Your task to perform on an android device: open sync settings in chrome Image 0: 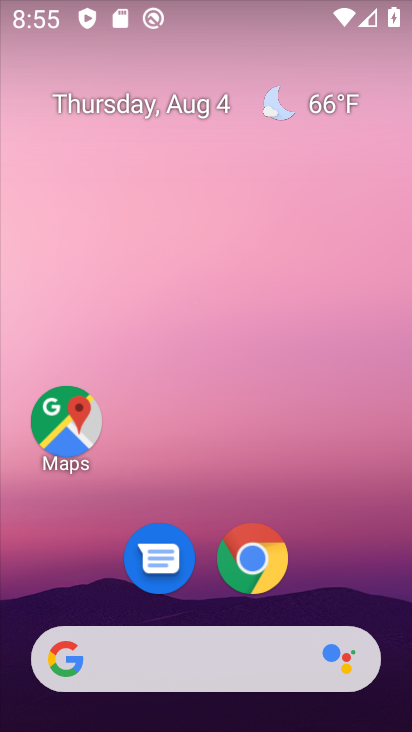
Step 0: drag from (333, 565) to (239, 157)
Your task to perform on an android device: open sync settings in chrome Image 1: 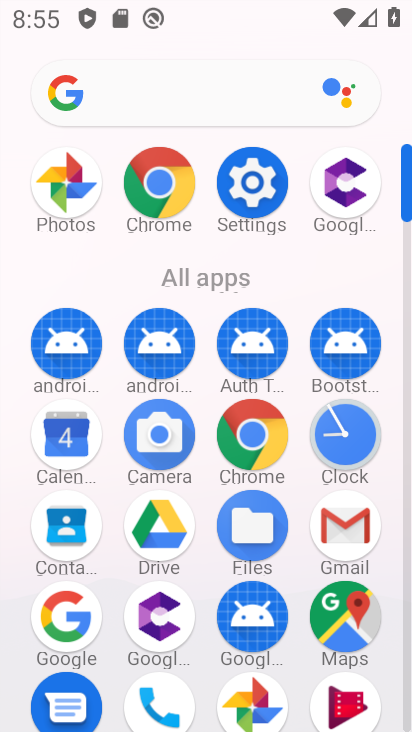
Step 1: click (247, 429)
Your task to perform on an android device: open sync settings in chrome Image 2: 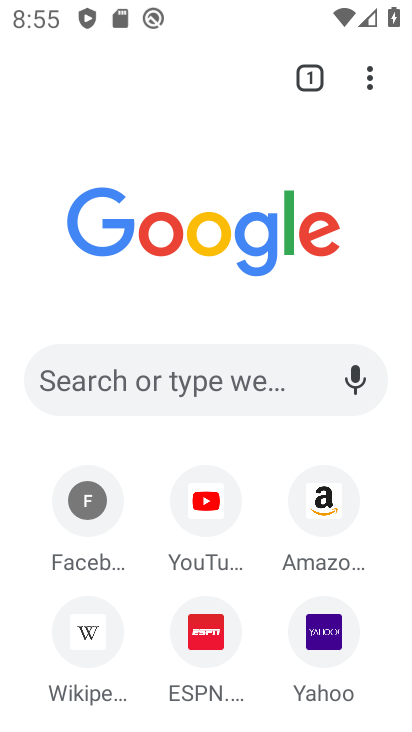
Step 2: drag from (371, 75) to (98, 614)
Your task to perform on an android device: open sync settings in chrome Image 3: 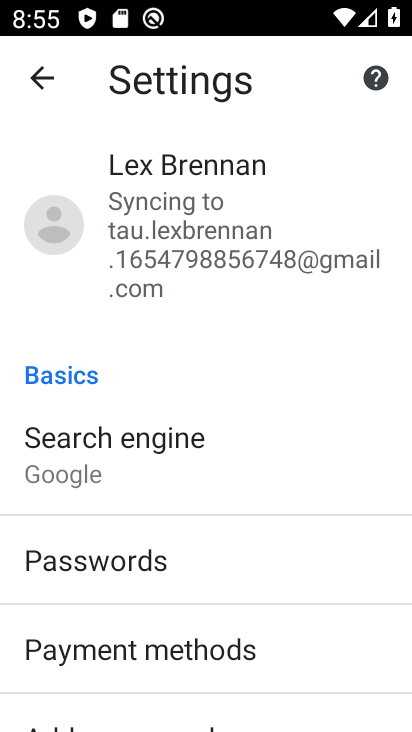
Step 3: drag from (310, 631) to (299, 232)
Your task to perform on an android device: open sync settings in chrome Image 4: 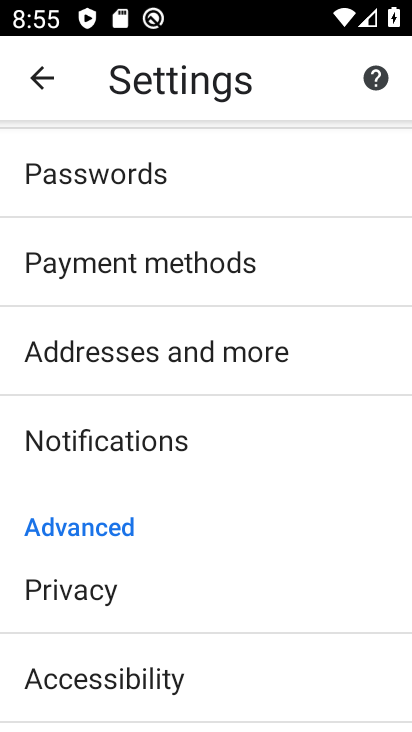
Step 4: drag from (288, 590) to (284, 242)
Your task to perform on an android device: open sync settings in chrome Image 5: 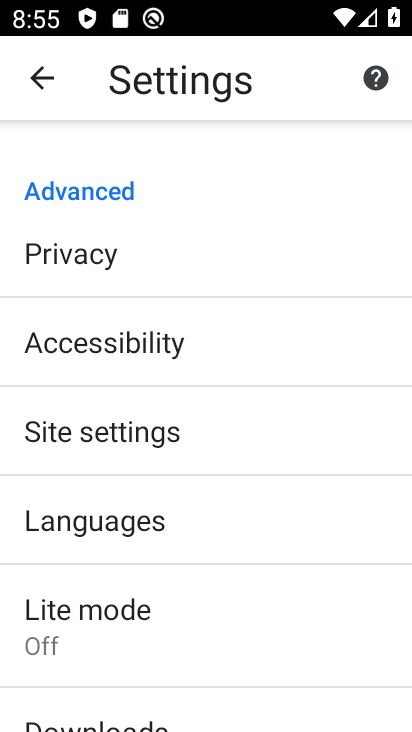
Step 5: drag from (226, 599) to (240, 329)
Your task to perform on an android device: open sync settings in chrome Image 6: 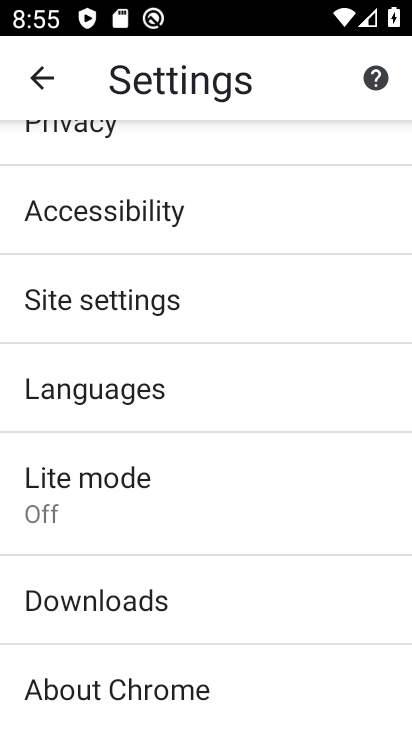
Step 6: click (121, 299)
Your task to perform on an android device: open sync settings in chrome Image 7: 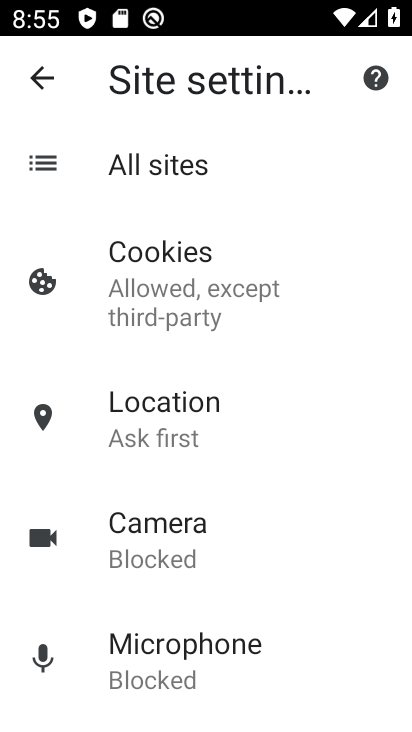
Step 7: drag from (296, 522) to (250, 206)
Your task to perform on an android device: open sync settings in chrome Image 8: 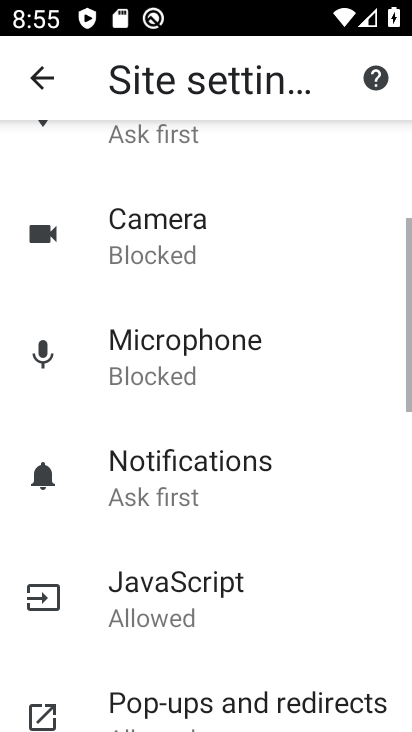
Step 8: drag from (226, 556) to (208, 646)
Your task to perform on an android device: open sync settings in chrome Image 9: 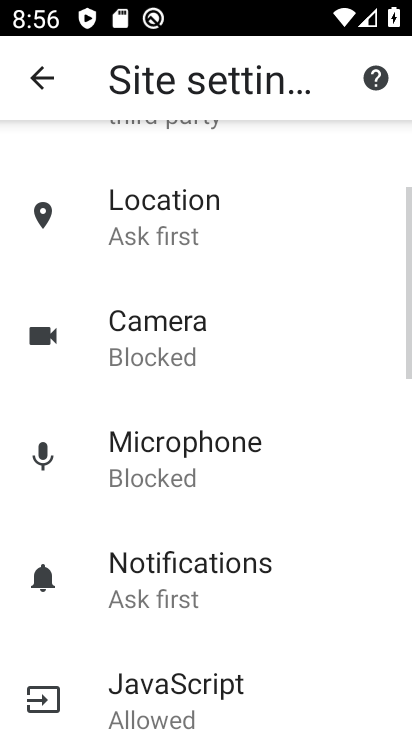
Step 9: drag from (184, 162) to (190, 588)
Your task to perform on an android device: open sync settings in chrome Image 10: 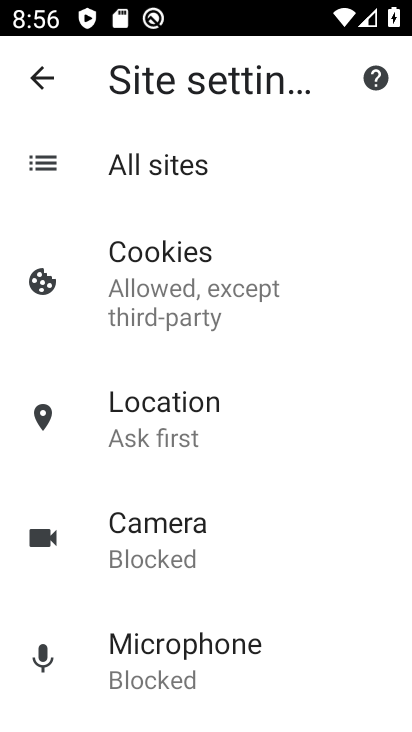
Step 10: click (44, 73)
Your task to perform on an android device: open sync settings in chrome Image 11: 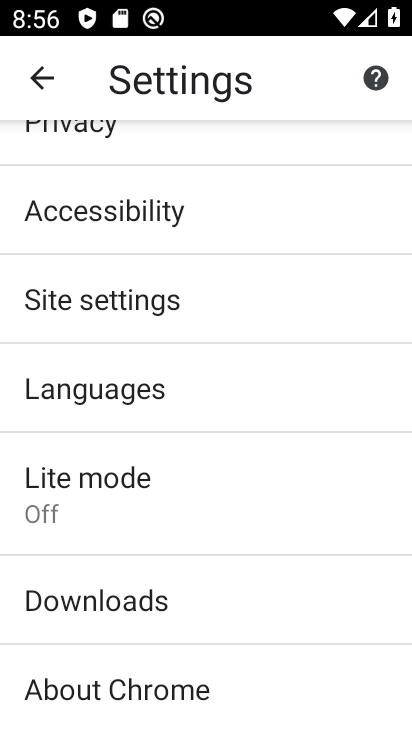
Step 11: drag from (225, 186) to (275, 557)
Your task to perform on an android device: open sync settings in chrome Image 12: 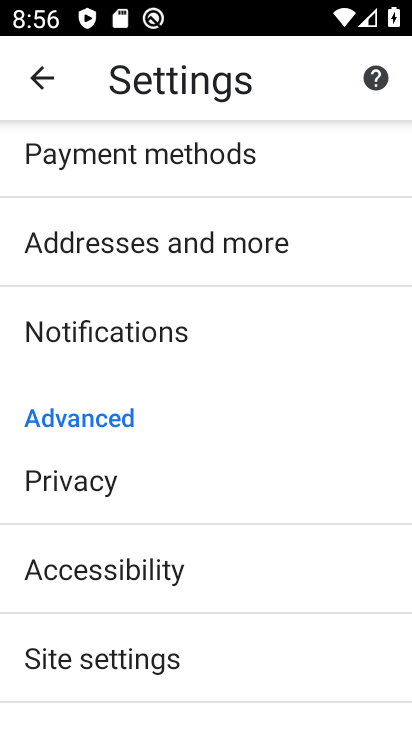
Step 12: drag from (179, 177) to (222, 517)
Your task to perform on an android device: open sync settings in chrome Image 13: 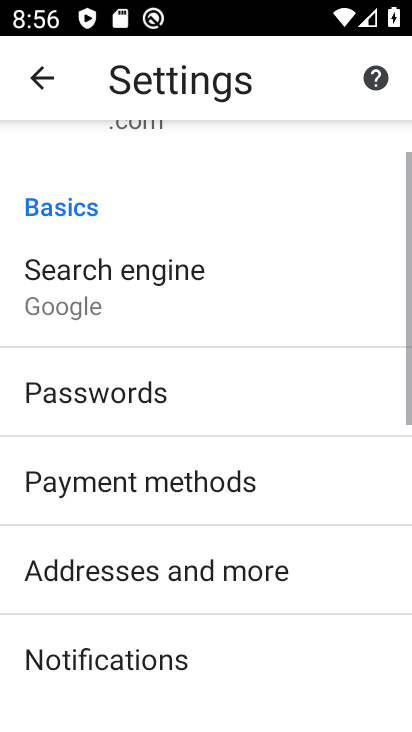
Step 13: drag from (256, 182) to (237, 460)
Your task to perform on an android device: open sync settings in chrome Image 14: 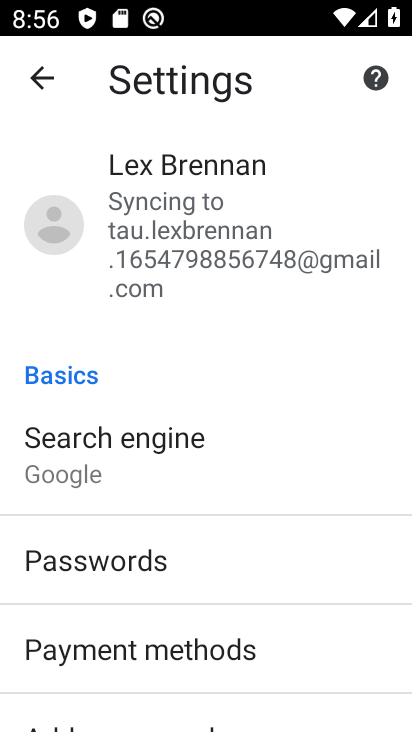
Step 14: click (133, 246)
Your task to perform on an android device: open sync settings in chrome Image 15: 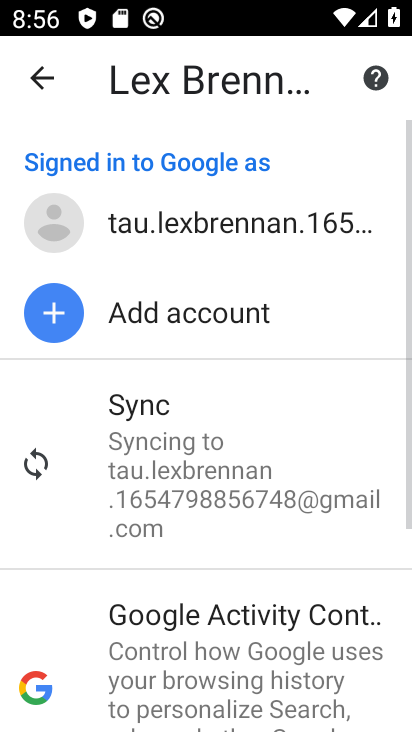
Step 15: click (118, 442)
Your task to perform on an android device: open sync settings in chrome Image 16: 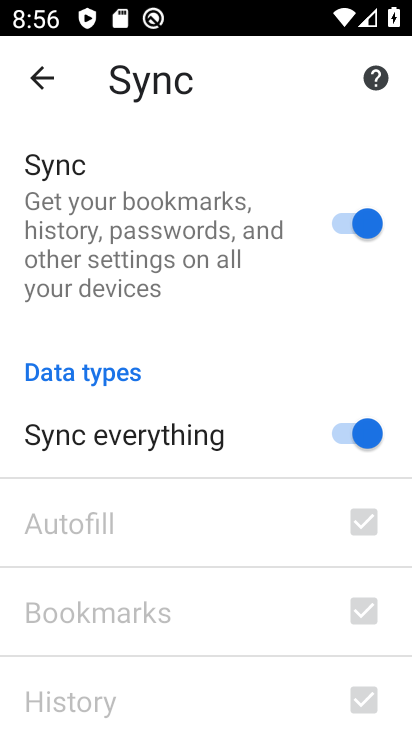
Step 16: task complete